Your task to perform on an android device: What's the weather going to be this weekend? Image 0: 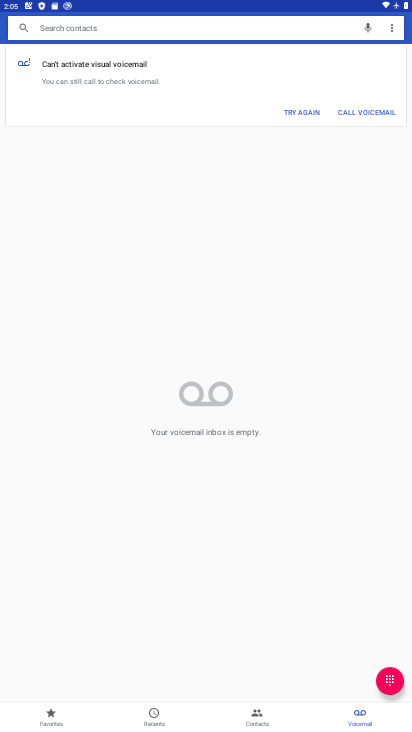
Step 0: press home button
Your task to perform on an android device: What's the weather going to be this weekend? Image 1: 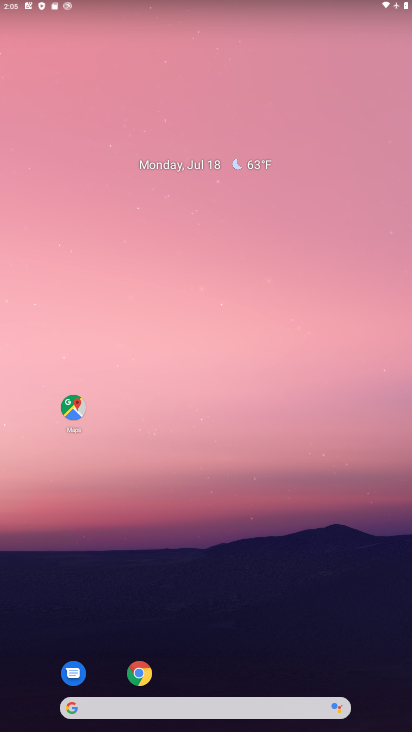
Step 1: drag from (262, 642) to (250, 168)
Your task to perform on an android device: What's the weather going to be this weekend? Image 2: 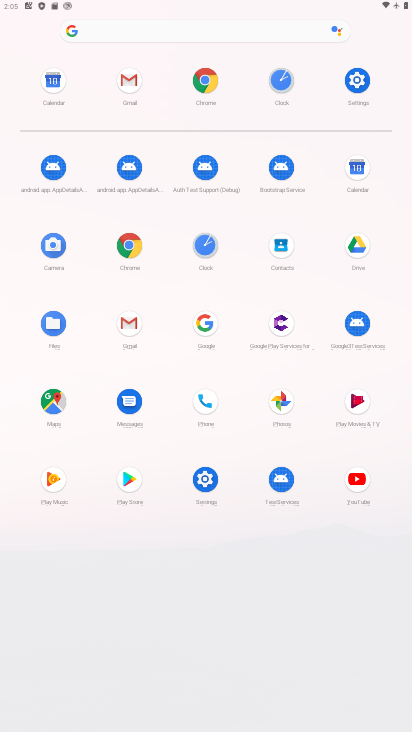
Step 2: click (347, 162)
Your task to perform on an android device: What's the weather going to be this weekend? Image 3: 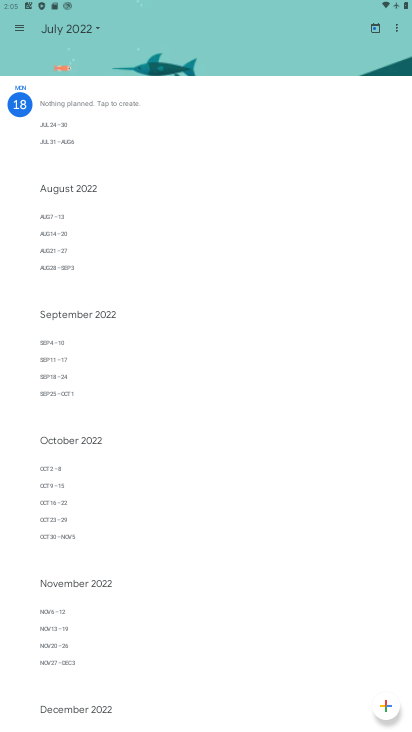
Step 3: click (15, 21)
Your task to perform on an android device: What's the weather going to be this weekend? Image 4: 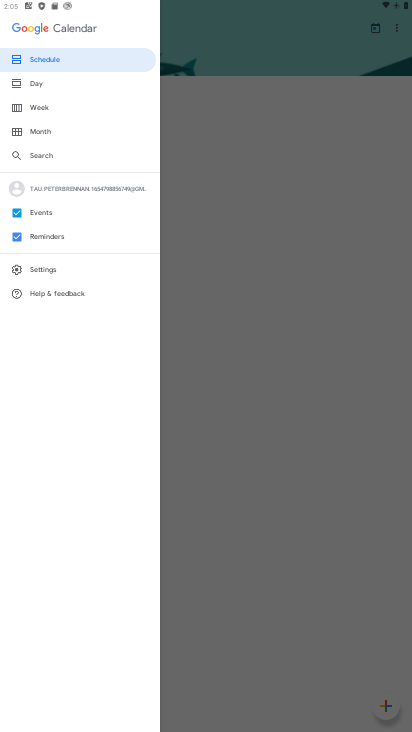
Step 4: click (48, 110)
Your task to perform on an android device: What's the weather going to be this weekend? Image 5: 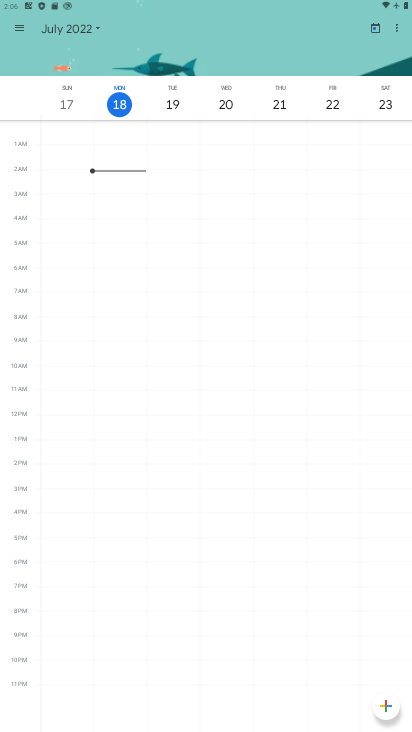
Step 5: task complete